Your task to perform on an android device: turn on showing notifications on the lock screen Image 0: 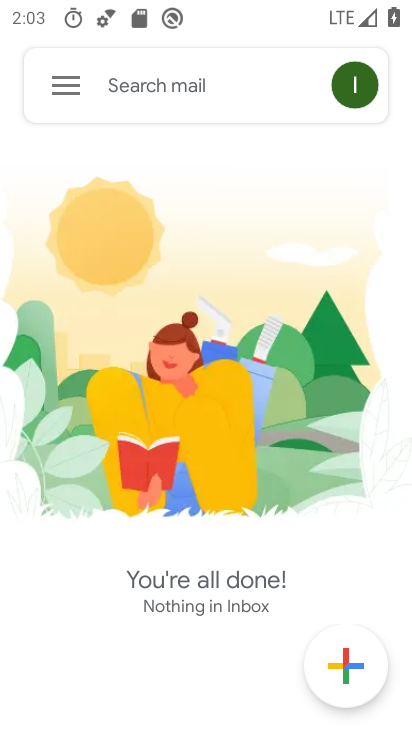
Step 0: press home button
Your task to perform on an android device: turn on showing notifications on the lock screen Image 1: 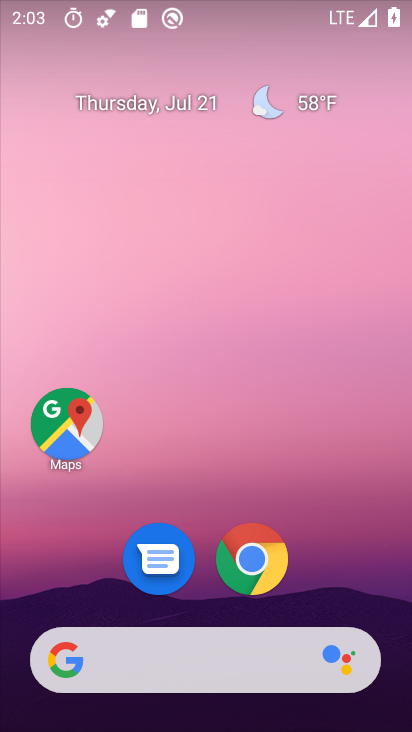
Step 1: drag from (363, 561) to (393, 81)
Your task to perform on an android device: turn on showing notifications on the lock screen Image 2: 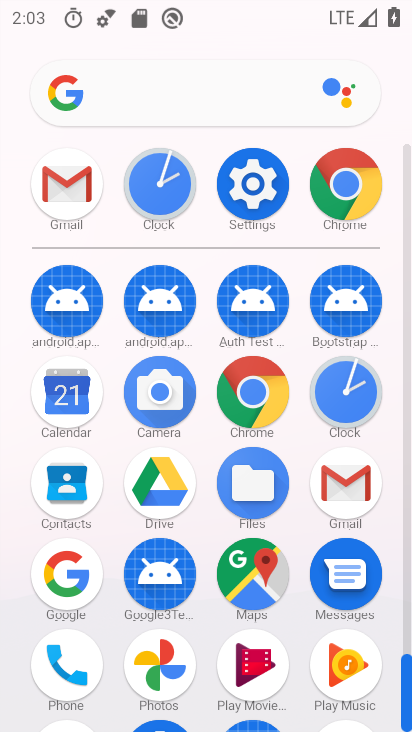
Step 2: click (265, 190)
Your task to perform on an android device: turn on showing notifications on the lock screen Image 3: 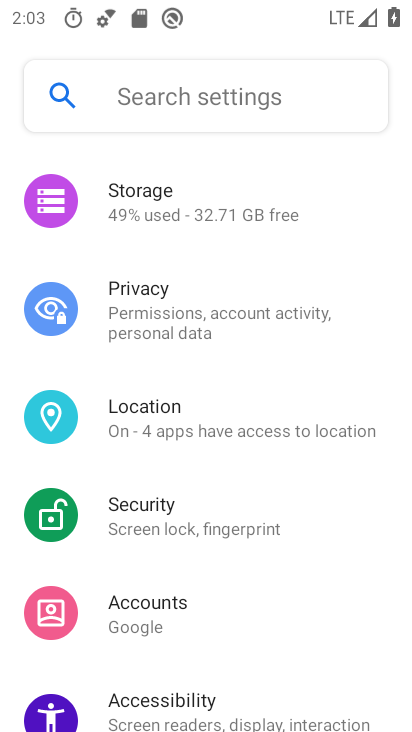
Step 3: drag from (375, 263) to (367, 388)
Your task to perform on an android device: turn on showing notifications on the lock screen Image 4: 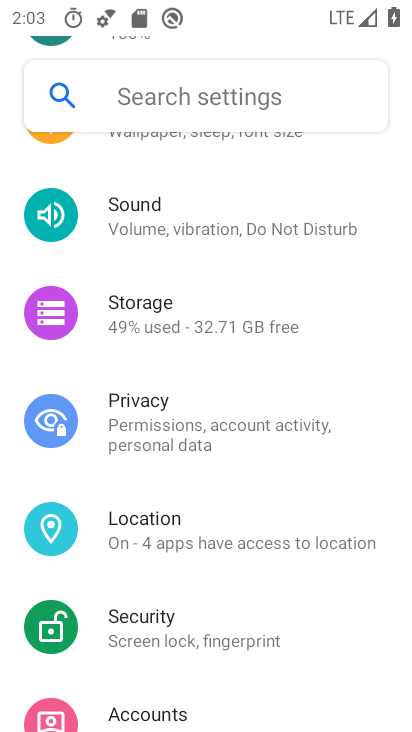
Step 4: drag from (369, 289) to (365, 407)
Your task to perform on an android device: turn on showing notifications on the lock screen Image 5: 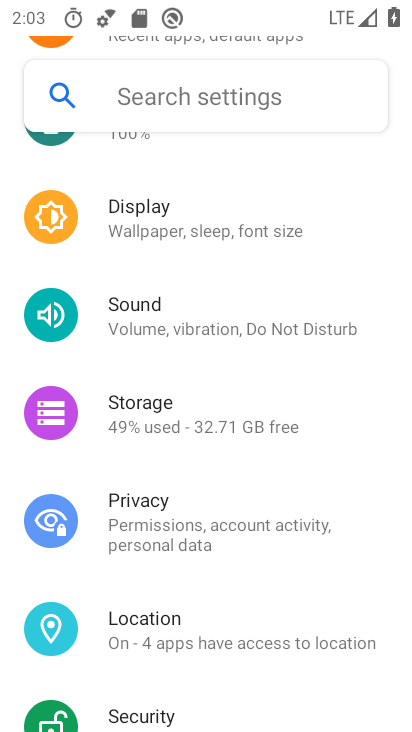
Step 5: drag from (358, 269) to (374, 381)
Your task to perform on an android device: turn on showing notifications on the lock screen Image 6: 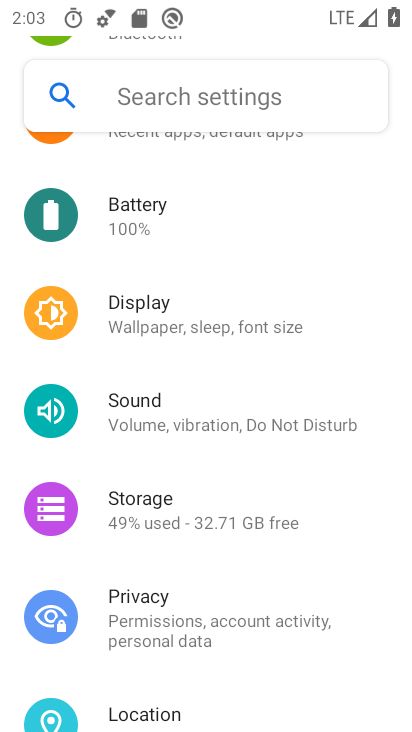
Step 6: drag from (369, 232) to (375, 339)
Your task to perform on an android device: turn on showing notifications on the lock screen Image 7: 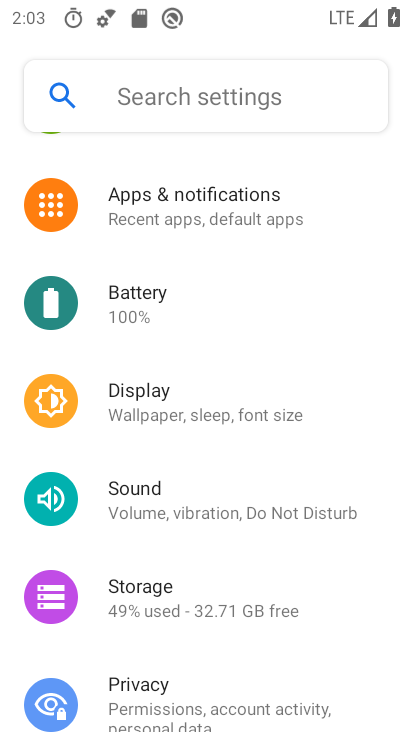
Step 7: drag from (363, 202) to (363, 328)
Your task to perform on an android device: turn on showing notifications on the lock screen Image 8: 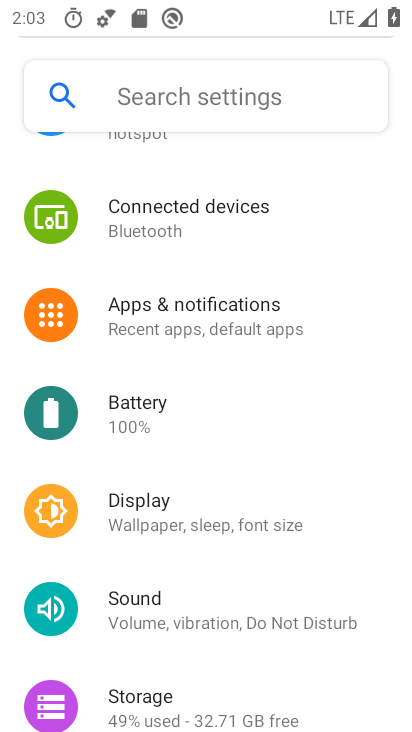
Step 8: drag from (357, 181) to (358, 313)
Your task to perform on an android device: turn on showing notifications on the lock screen Image 9: 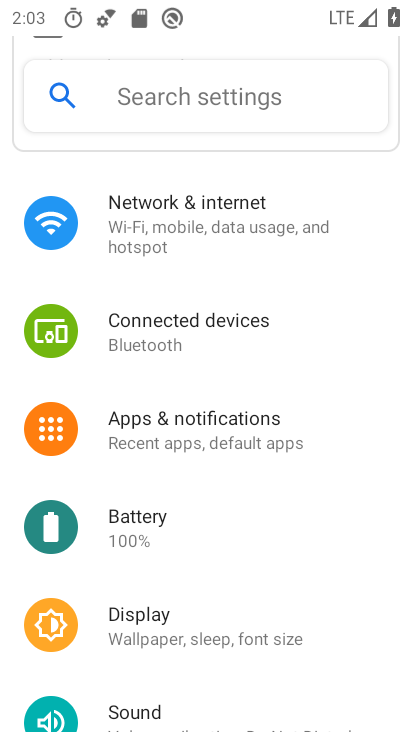
Step 9: click (332, 430)
Your task to perform on an android device: turn on showing notifications on the lock screen Image 10: 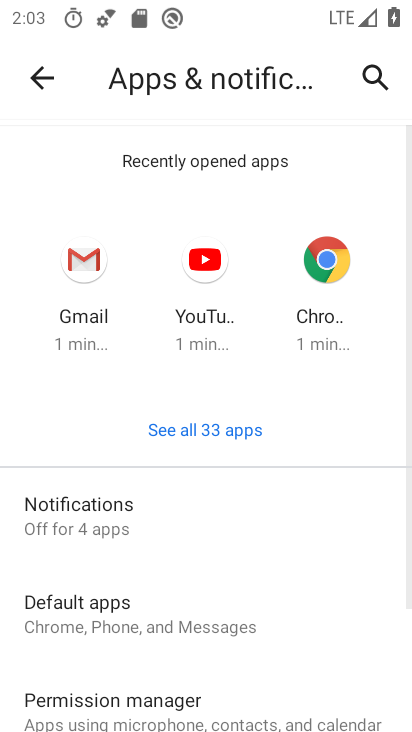
Step 10: click (151, 517)
Your task to perform on an android device: turn on showing notifications on the lock screen Image 11: 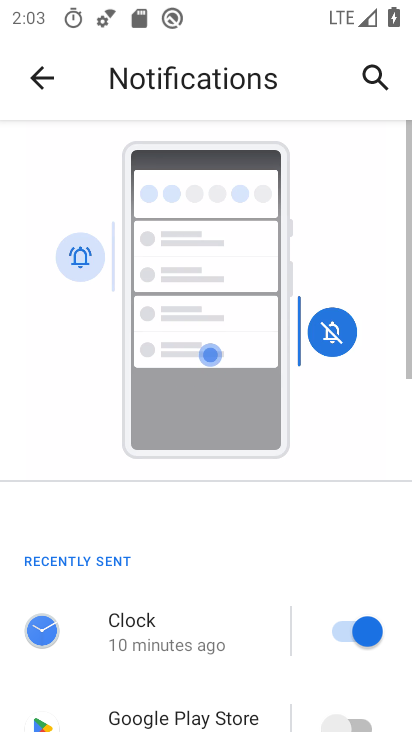
Step 11: drag from (305, 546) to (308, 422)
Your task to perform on an android device: turn on showing notifications on the lock screen Image 12: 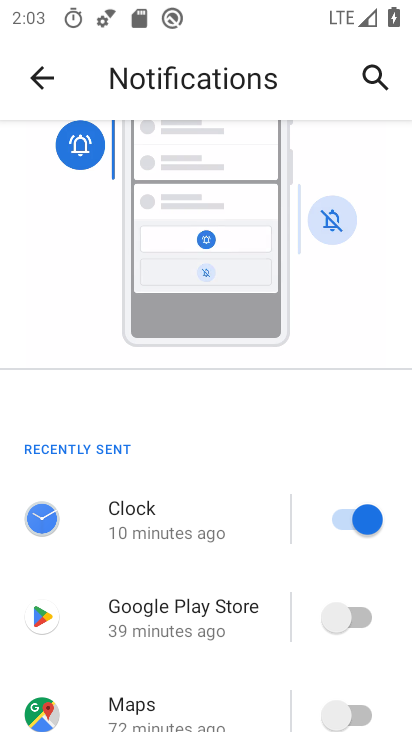
Step 12: drag from (254, 566) to (254, 417)
Your task to perform on an android device: turn on showing notifications on the lock screen Image 13: 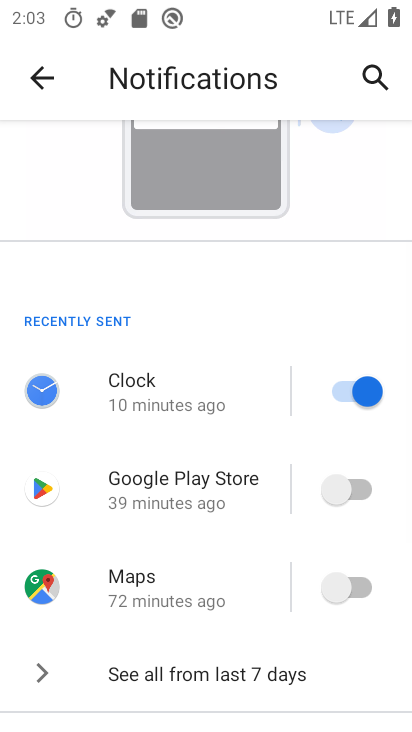
Step 13: drag from (246, 550) to (249, 347)
Your task to perform on an android device: turn on showing notifications on the lock screen Image 14: 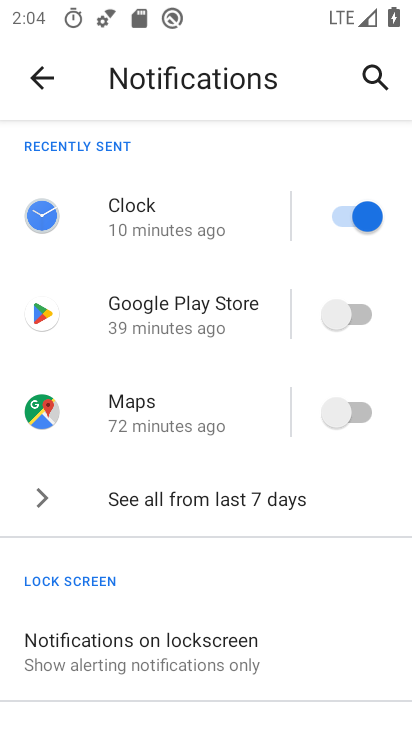
Step 14: drag from (263, 534) to (267, 371)
Your task to perform on an android device: turn on showing notifications on the lock screen Image 15: 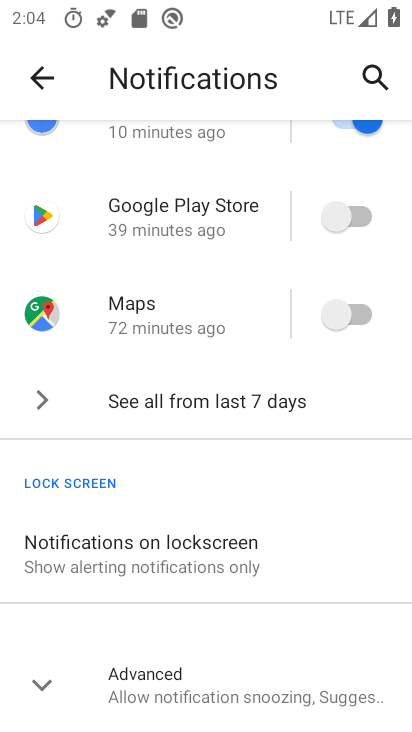
Step 15: click (278, 558)
Your task to perform on an android device: turn on showing notifications on the lock screen Image 16: 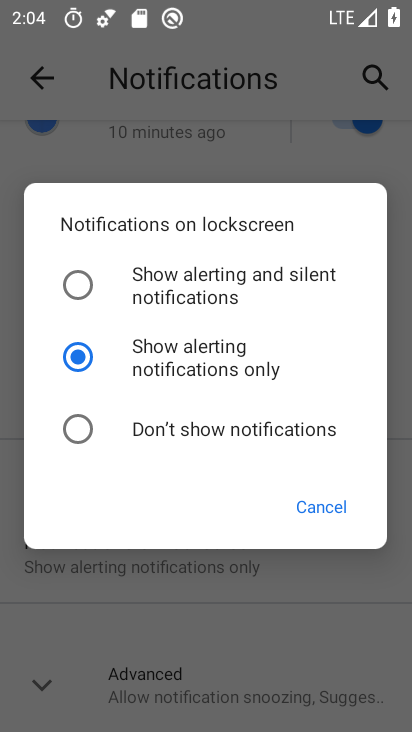
Step 16: task complete